Your task to perform on an android device: star an email in the gmail app Image 0: 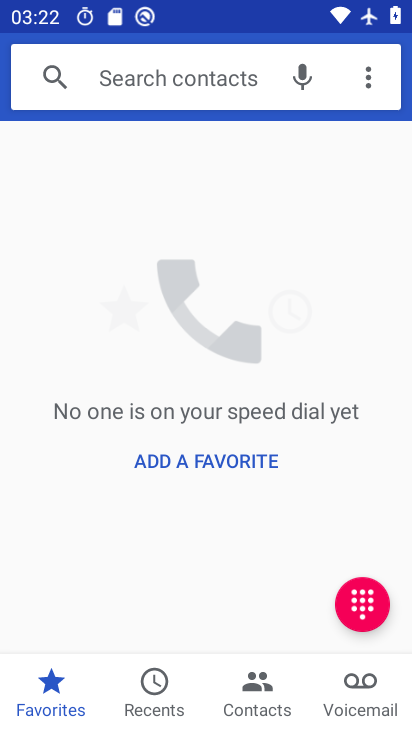
Step 0: press home button
Your task to perform on an android device: star an email in the gmail app Image 1: 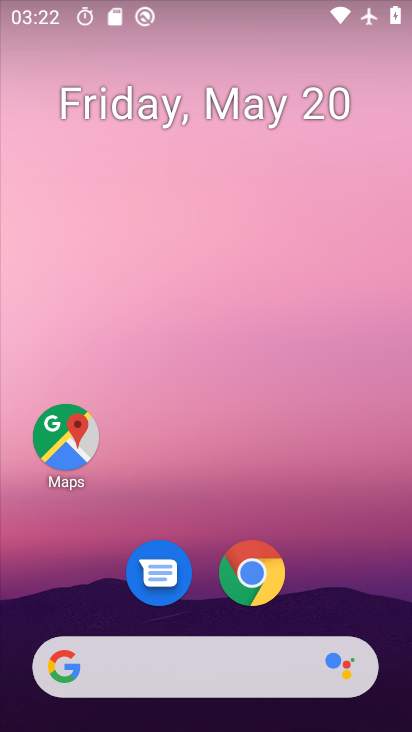
Step 1: drag from (196, 619) to (196, 149)
Your task to perform on an android device: star an email in the gmail app Image 2: 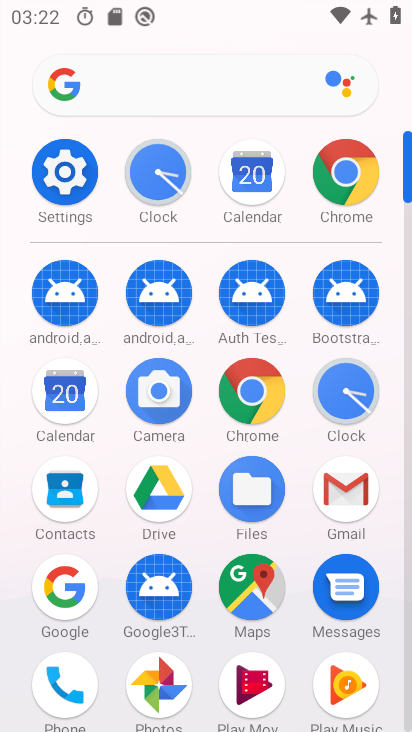
Step 2: click (333, 496)
Your task to perform on an android device: star an email in the gmail app Image 3: 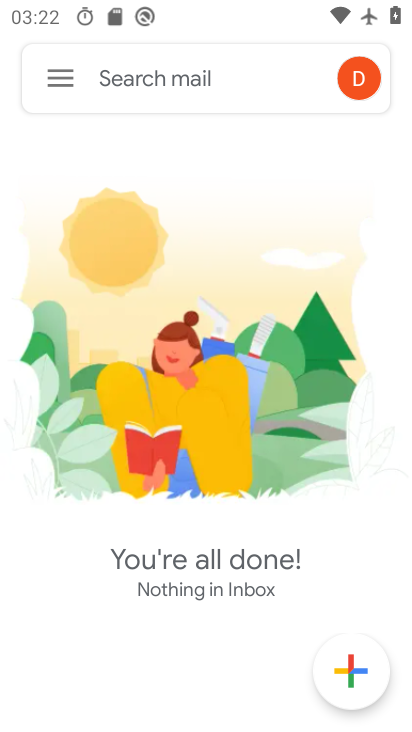
Step 3: click (60, 79)
Your task to perform on an android device: star an email in the gmail app Image 4: 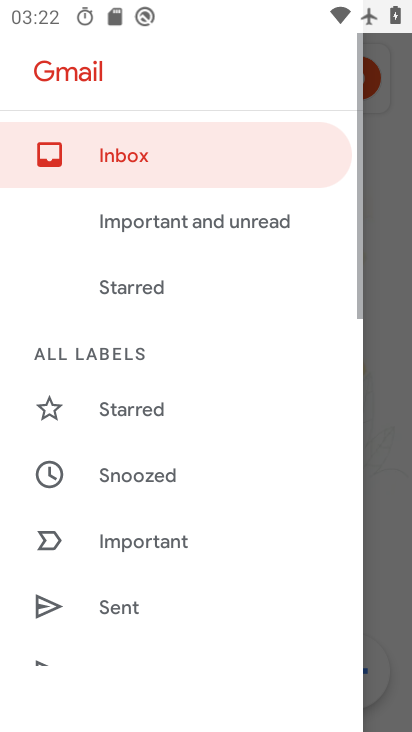
Step 4: drag from (175, 594) to (199, 280)
Your task to perform on an android device: star an email in the gmail app Image 5: 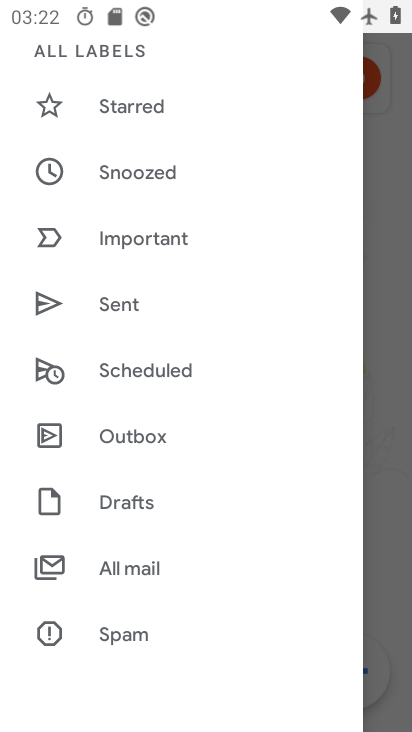
Step 5: click (143, 557)
Your task to perform on an android device: star an email in the gmail app Image 6: 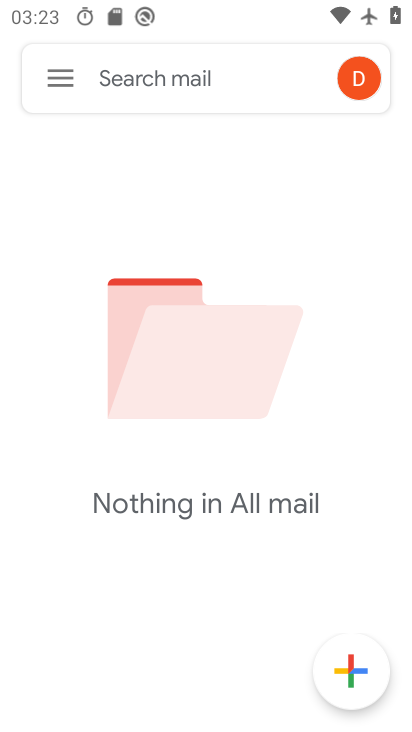
Step 6: task complete